Your task to perform on an android device: toggle translation in the chrome app Image 0: 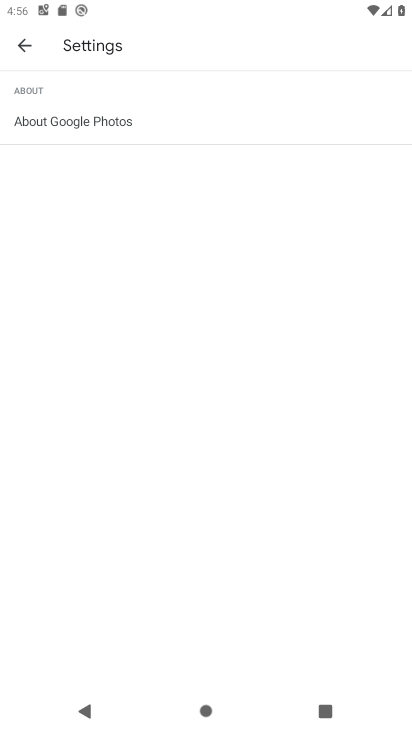
Step 0: press home button
Your task to perform on an android device: toggle translation in the chrome app Image 1: 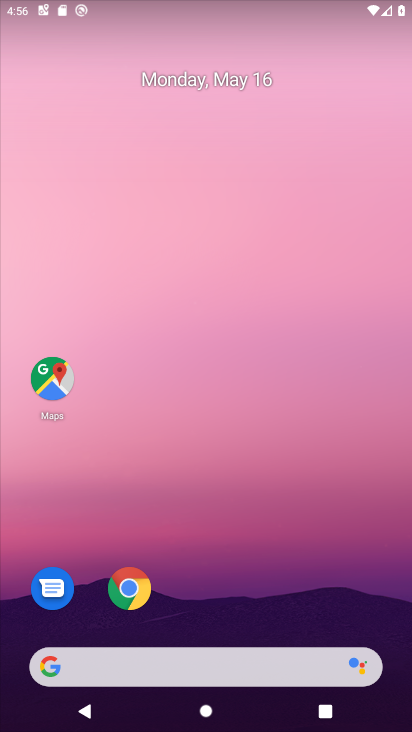
Step 1: drag from (305, 549) to (225, 117)
Your task to perform on an android device: toggle translation in the chrome app Image 2: 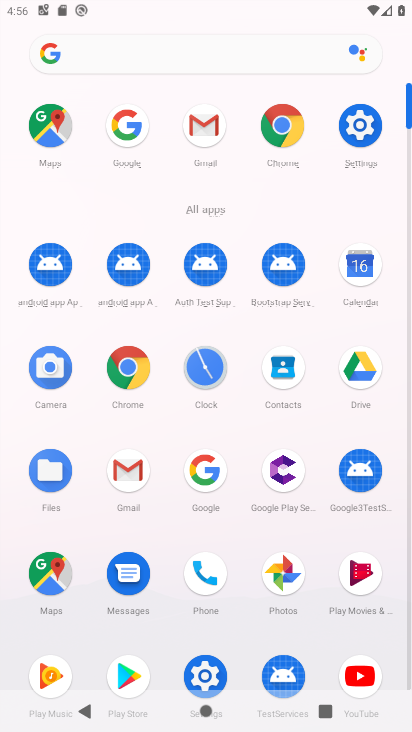
Step 2: click (281, 130)
Your task to perform on an android device: toggle translation in the chrome app Image 3: 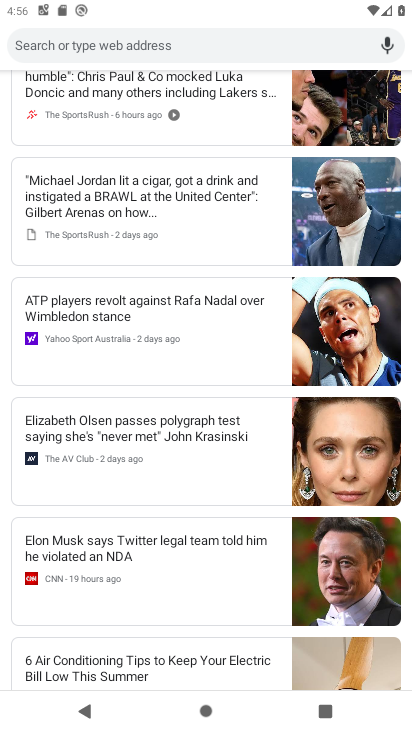
Step 3: drag from (182, 153) to (193, 655)
Your task to perform on an android device: toggle translation in the chrome app Image 4: 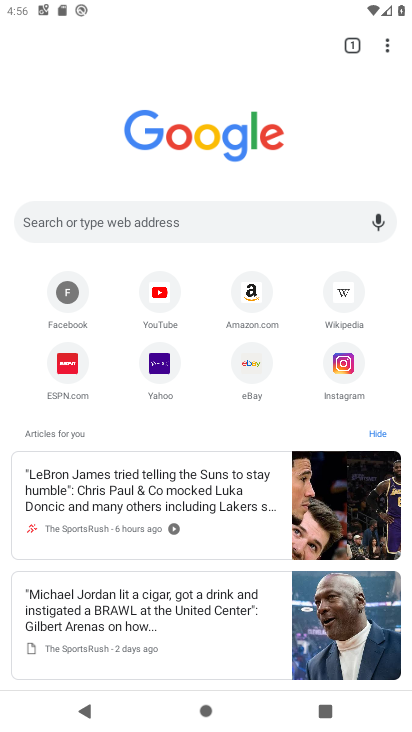
Step 4: click (386, 40)
Your task to perform on an android device: toggle translation in the chrome app Image 5: 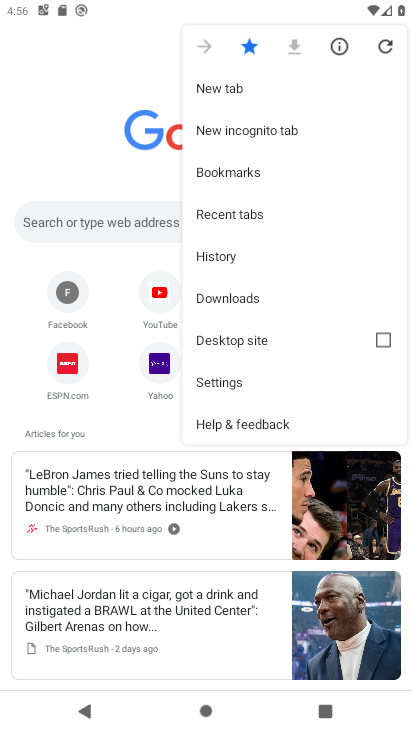
Step 5: click (249, 381)
Your task to perform on an android device: toggle translation in the chrome app Image 6: 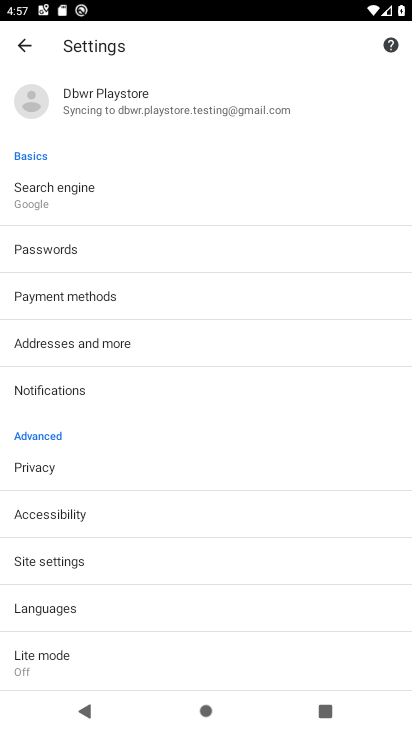
Step 6: click (99, 611)
Your task to perform on an android device: toggle translation in the chrome app Image 7: 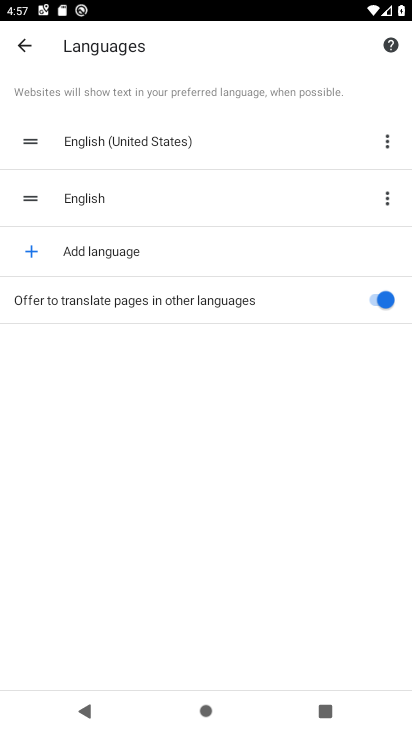
Step 7: click (382, 304)
Your task to perform on an android device: toggle translation in the chrome app Image 8: 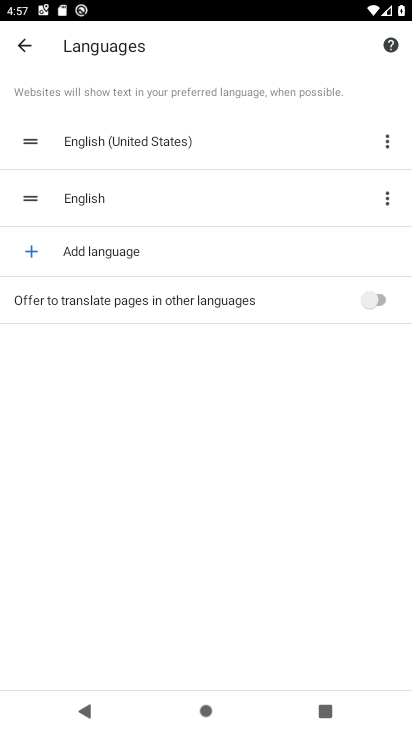
Step 8: task complete